Your task to perform on an android device: Open Google Chrome and open the bookmarks view Image 0: 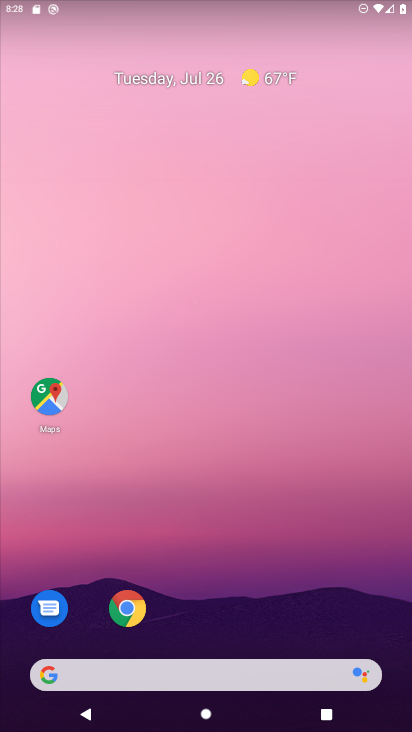
Step 0: click (137, 605)
Your task to perform on an android device: Open Google Chrome and open the bookmarks view Image 1: 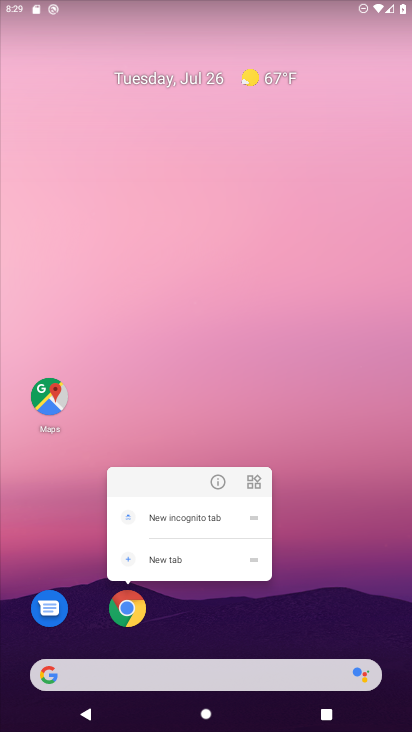
Step 1: click (124, 618)
Your task to perform on an android device: Open Google Chrome and open the bookmarks view Image 2: 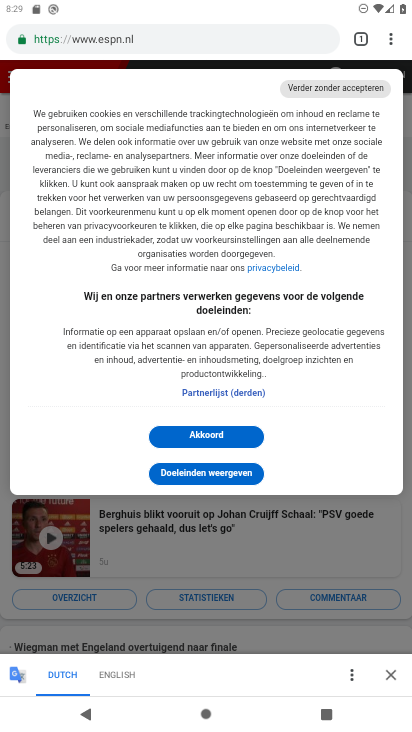
Step 2: click (395, 33)
Your task to perform on an android device: Open Google Chrome and open the bookmarks view Image 3: 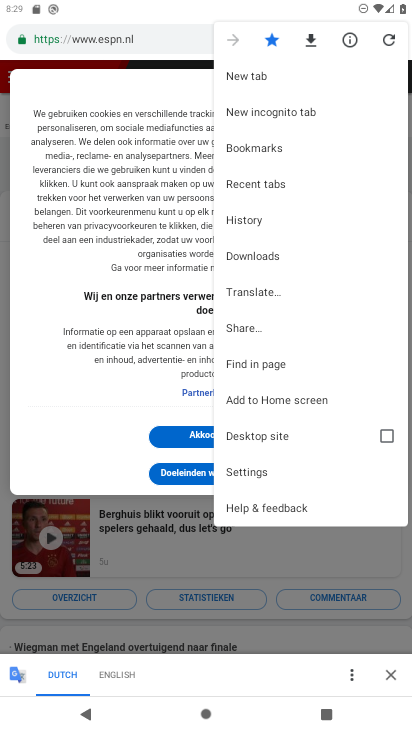
Step 3: click (276, 159)
Your task to perform on an android device: Open Google Chrome and open the bookmarks view Image 4: 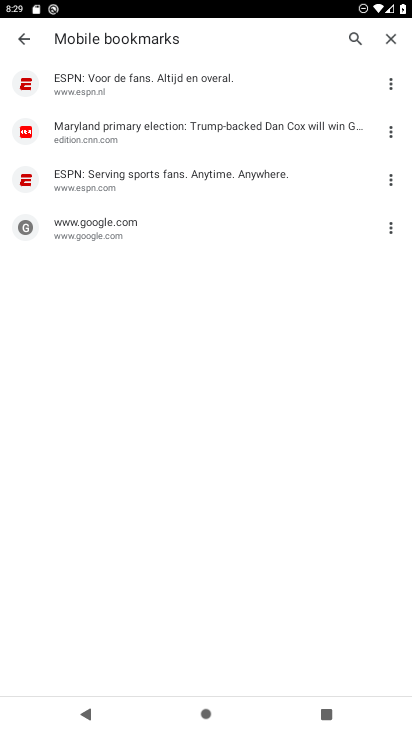
Step 4: task complete